Your task to perform on an android device: add a contact Image 0: 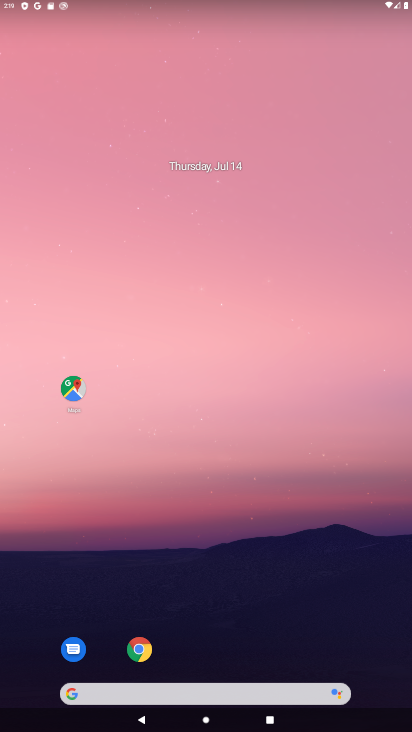
Step 0: drag from (276, 655) to (177, 147)
Your task to perform on an android device: add a contact Image 1: 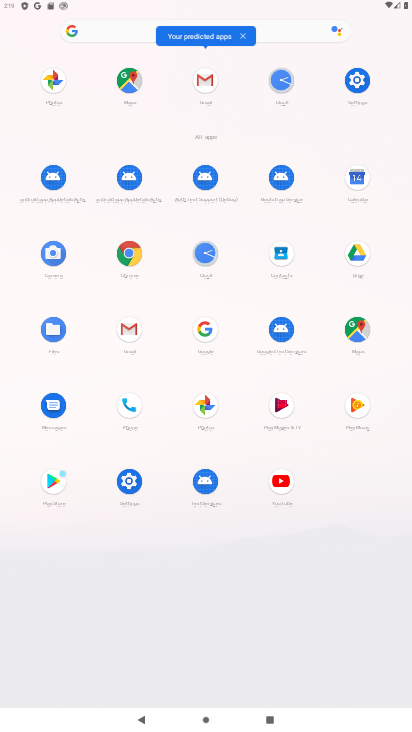
Step 1: click (283, 256)
Your task to perform on an android device: add a contact Image 2: 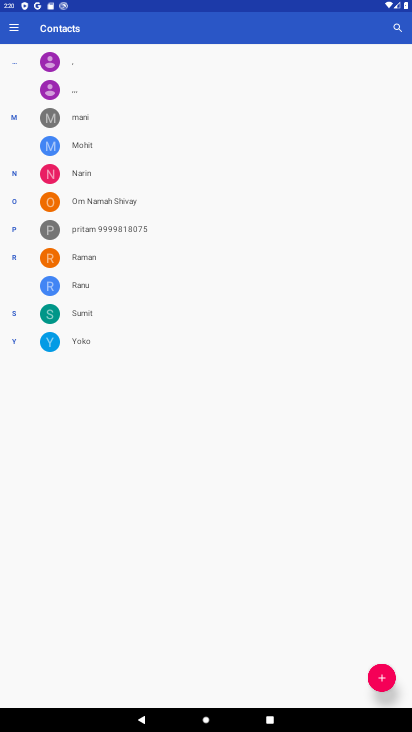
Step 2: click (387, 682)
Your task to perform on an android device: add a contact Image 3: 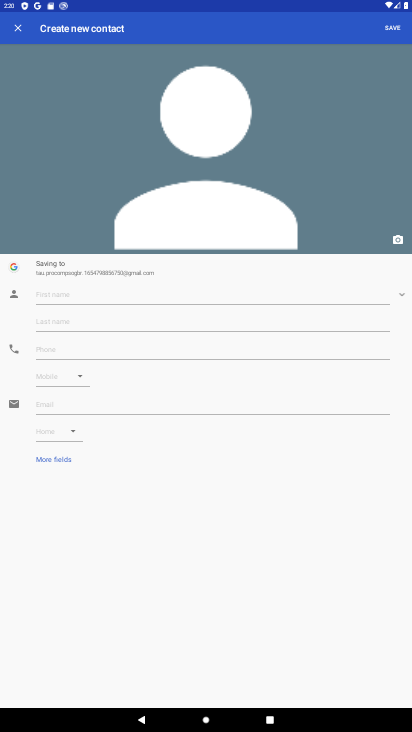
Step 3: click (237, 293)
Your task to perform on an android device: add a contact Image 4: 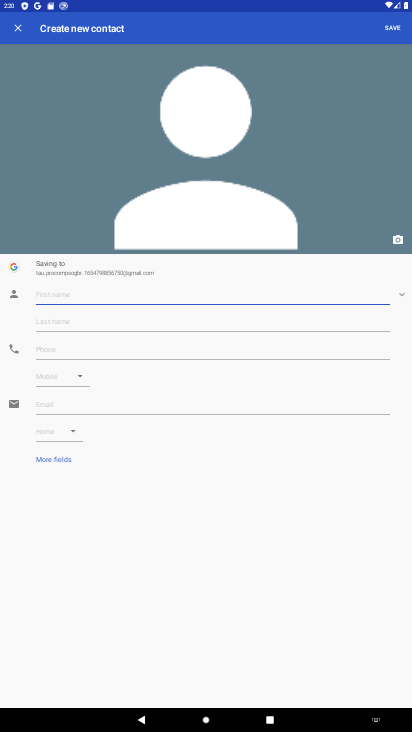
Step 4: type "yutt"
Your task to perform on an android device: add a contact Image 5: 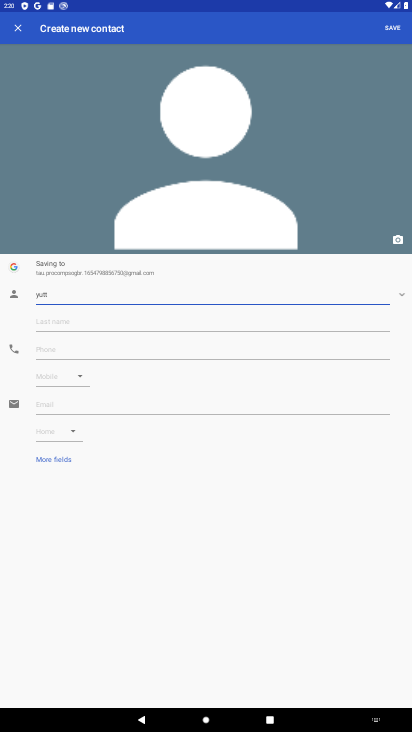
Step 5: click (84, 351)
Your task to perform on an android device: add a contact Image 6: 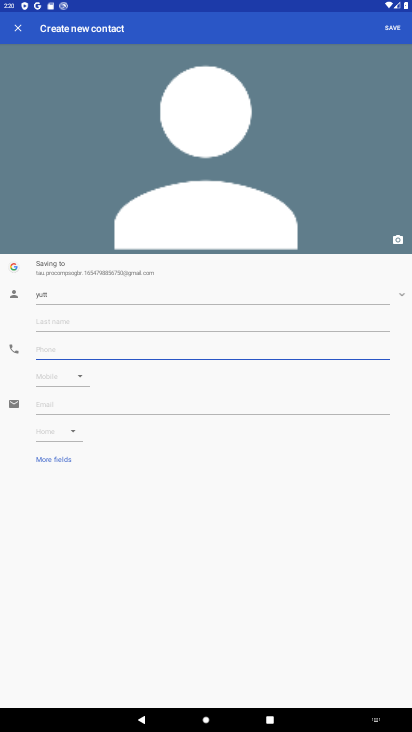
Step 6: type "3324556765"
Your task to perform on an android device: add a contact Image 7: 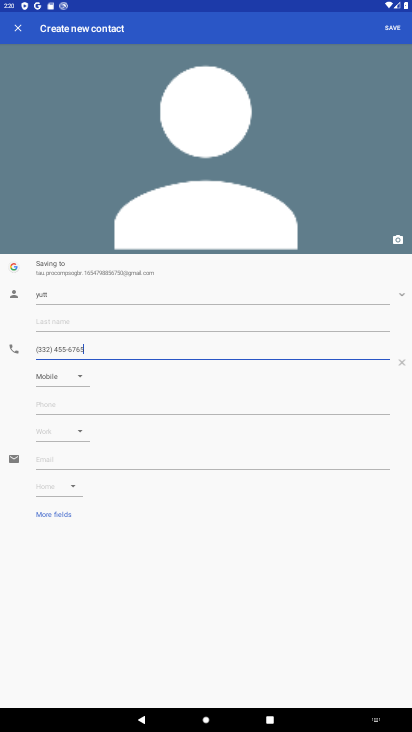
Step 7: click (389, 32)
Your task to perform on an android device: add a contact Image 8: 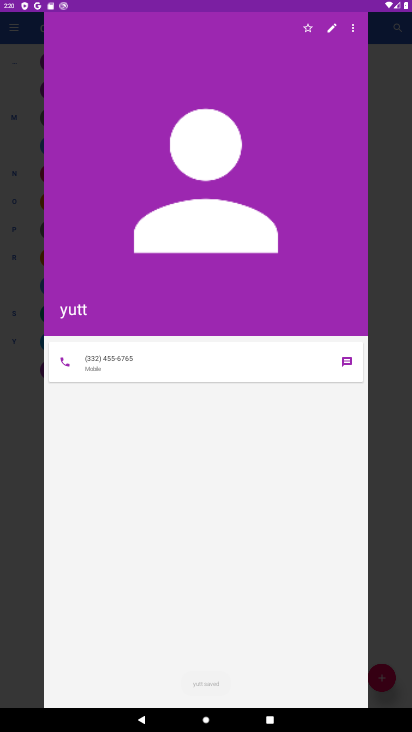
Step 8: task complete